Your task to perform on an android device: turn on improve location accuracy Image 0: 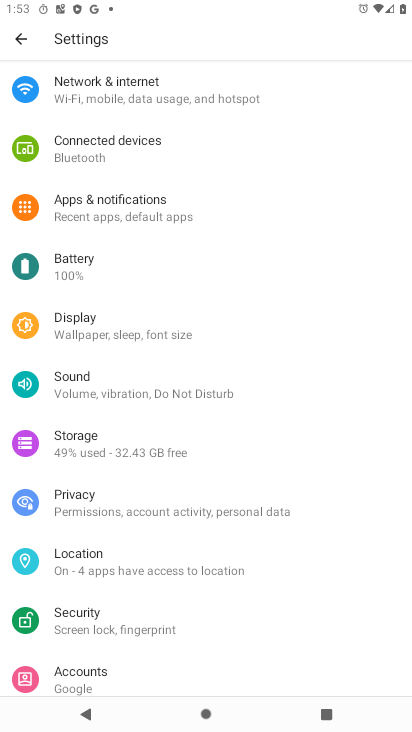
Step 0: press home button
Your task to perform on an android device: turn on improve location accuracy Image 1: 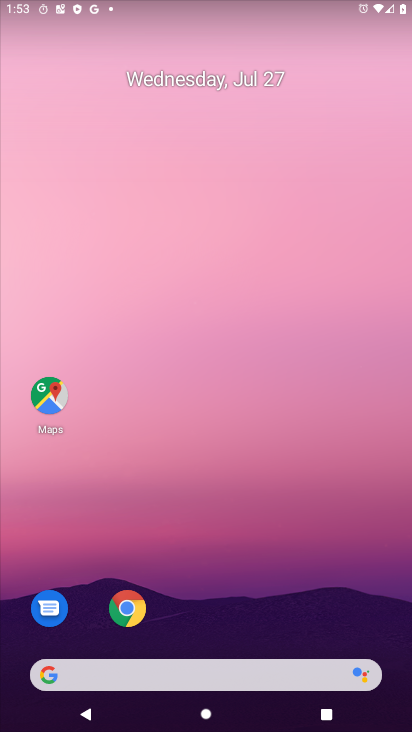
Step 1: drag from (183, 623) to (81, 101)
Your task to perform on an android device: turn on improve location accuracy Image 2: 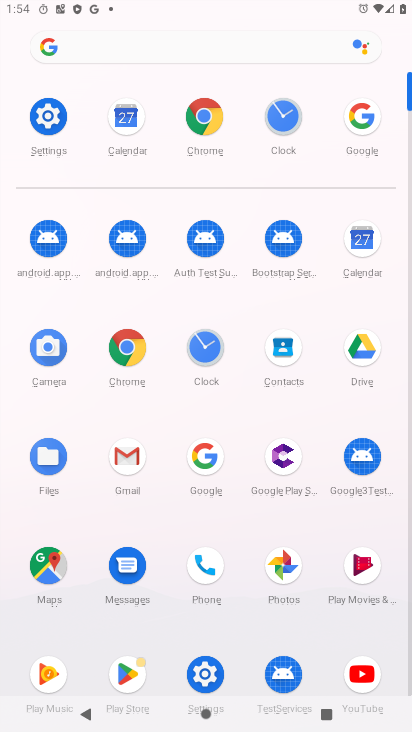
Step 2: click (43, 136)
Your task to perform on an android device: turn on improve location accuracy Image 3: 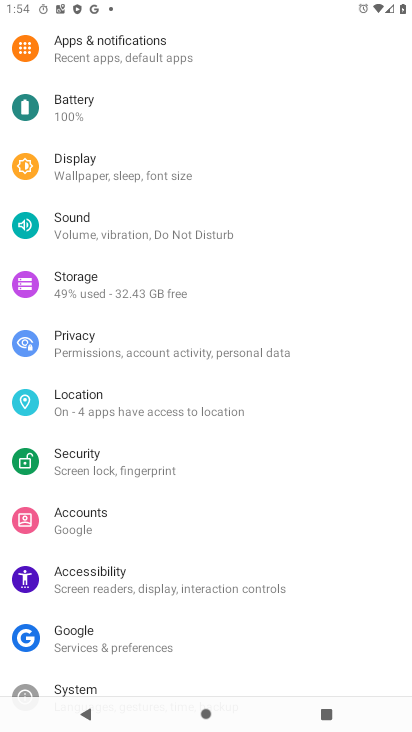
Step 3: click (82, 401)
Your task to perform on an android device: turn on improve location accuracy Image 4: 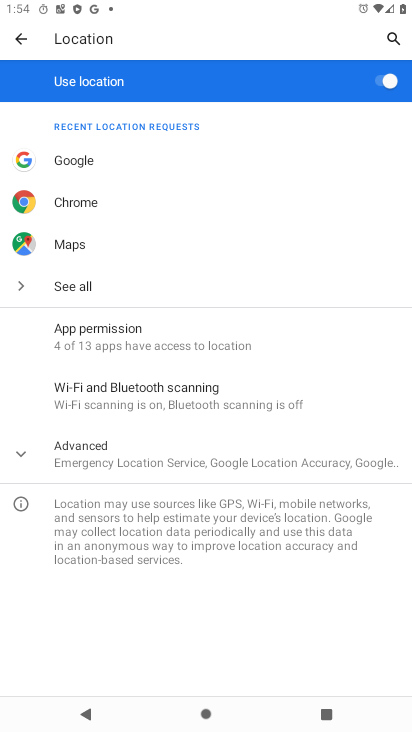
Step 4: click (114, 450)
Your task to perform on an android device: turn on improve location accuracy Image 5: 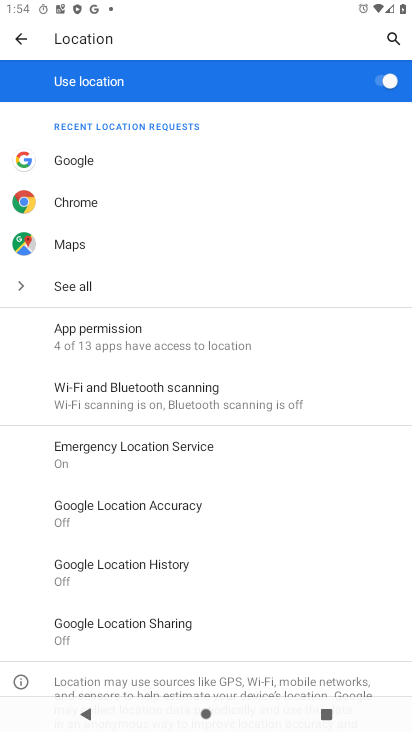
Step 5: click (142, 507)
Your task to perform on an android device: turn on improve location accuracy Image 6: 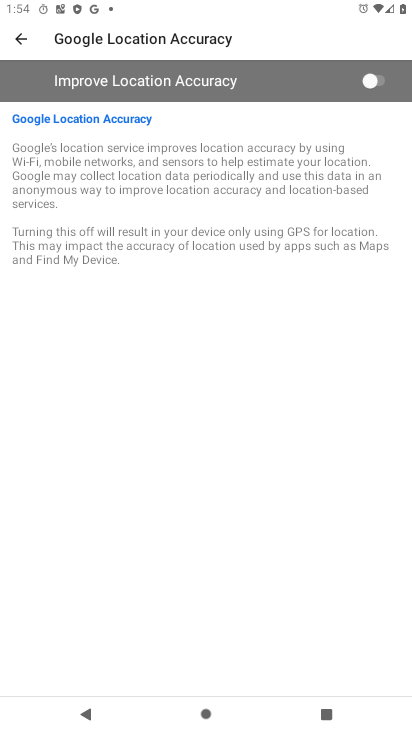
Step 6: click (385, 85)
Your task to perform on an android device: turn on improve location accuracy Image 7: 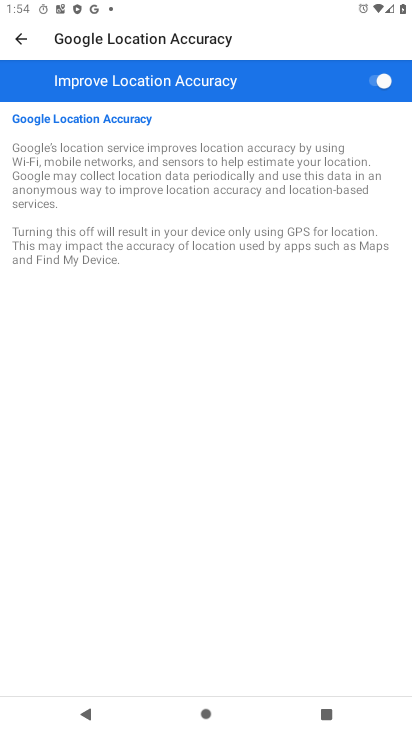
Step 7: task complete